Your task to perform on an android device: Open Chrome and go to the settings page Image 0: 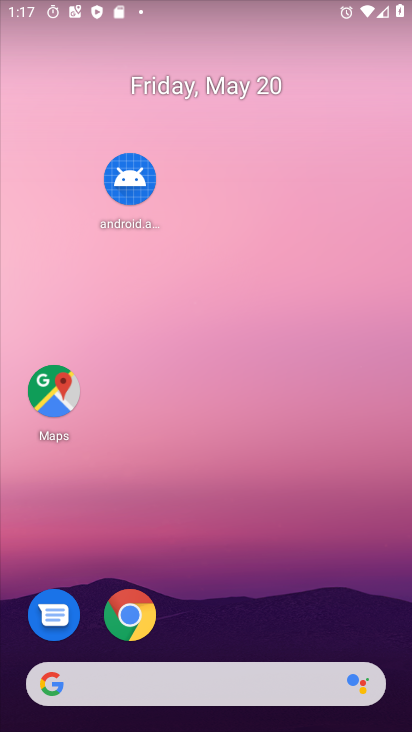
Step 0: click (138, 598)
Your task to perform on an android device: Open Chrome and go to the settings page Image 1: 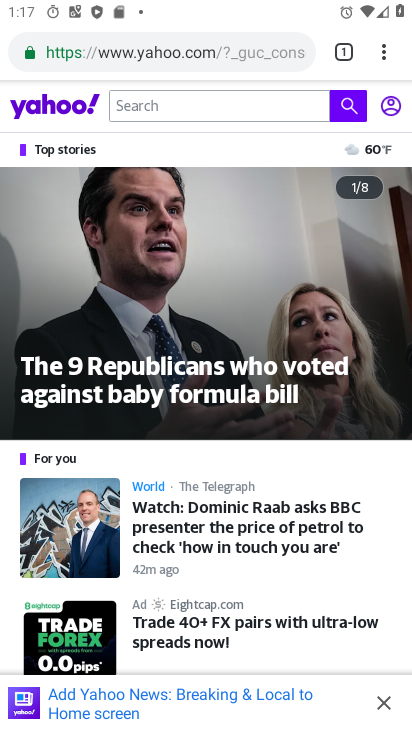
Step 1: click (386, 54)
Your task to perform on an android device: Open Chrome and go to the settings page Image 2: 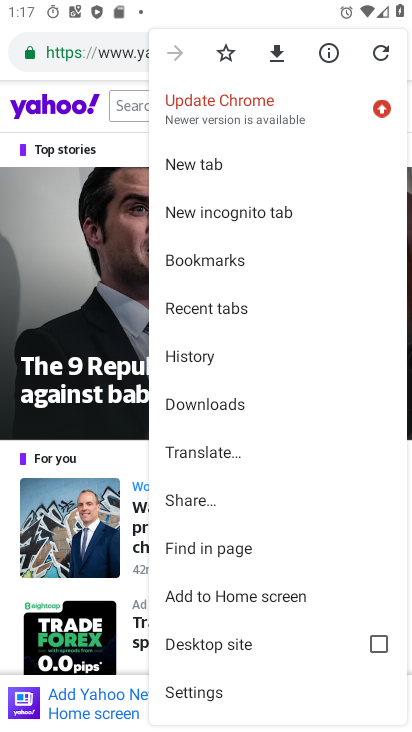
Step 2: click (240, 693)
Your task to perform on an android device: Open Chrome and go to the settings page Image 3: 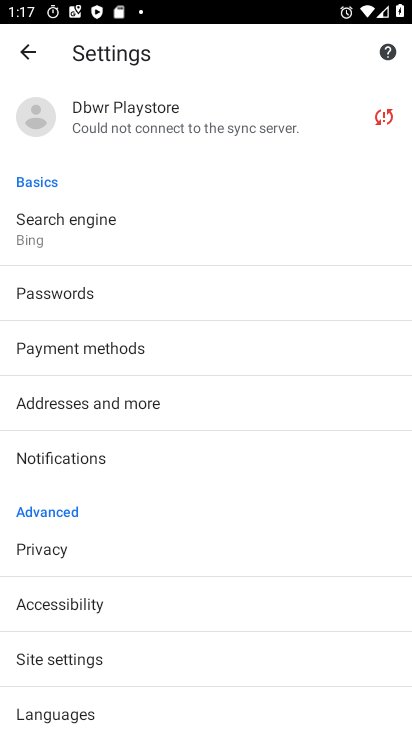
Step 3: task complete